Your task to perform on an android device: find snoozed emails in the gmail app Image 0: 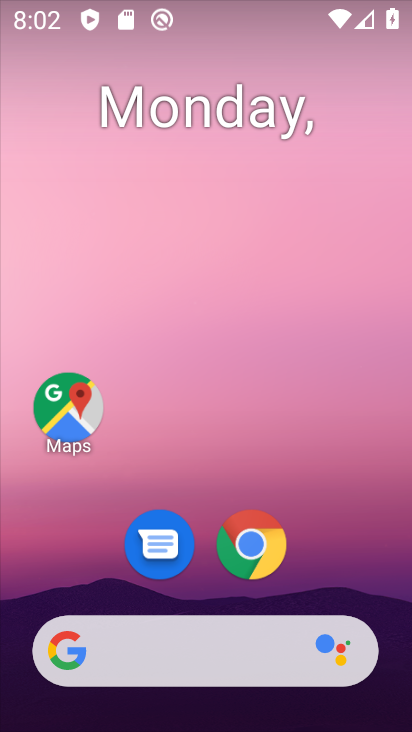
Step 0: drag from (232, 600) to (187, 16)
Your task to perform on an android device: find snoozed emails in the gmail app Image 1: 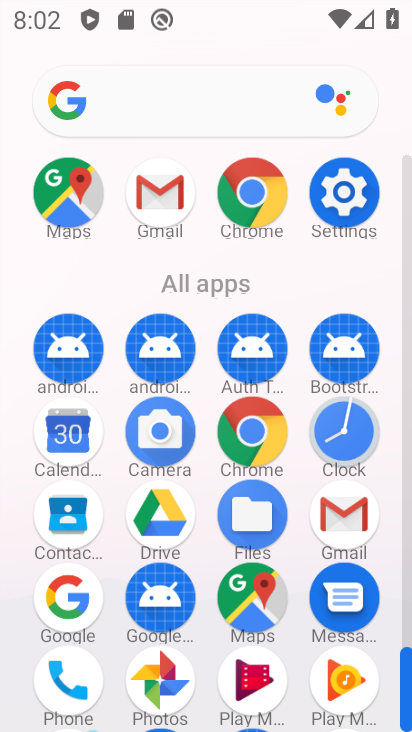
Step 1: click (342, 523)
Your task to perform on an android device: find snoozed emails in the gmail app Image 2: 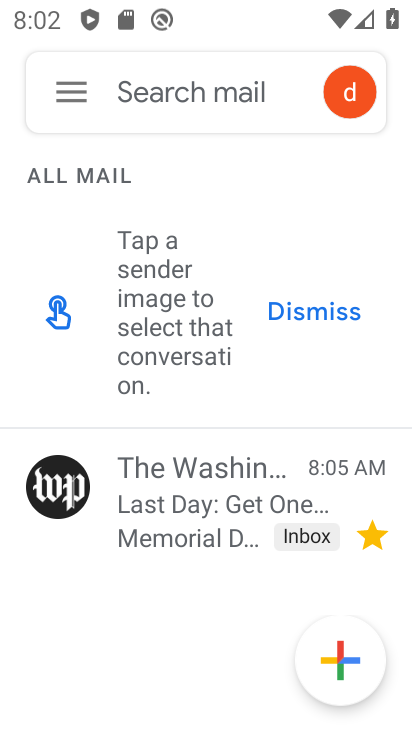
Step 2: click (68, 96)
Your task to perform on an android device: find snoozed emails in the gmail app Image 3: 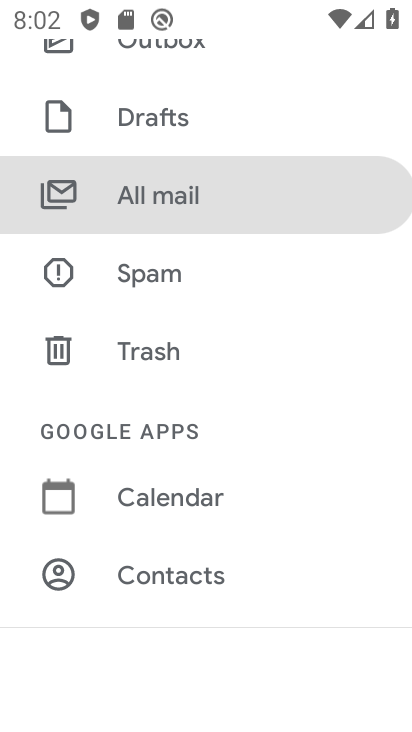
Step 3: drag from (182, 591) to (108, 101)
Your task to perform on an android device: find snoozed emails in the gmail app Image 4: 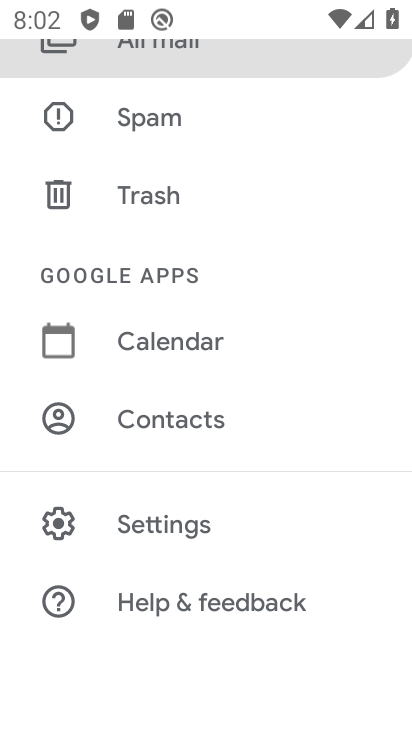
Step 4: drag from (124, 153) to (128, 663)
Your task to perform on an android device: find snoozed emails in the gmail app Image 5: 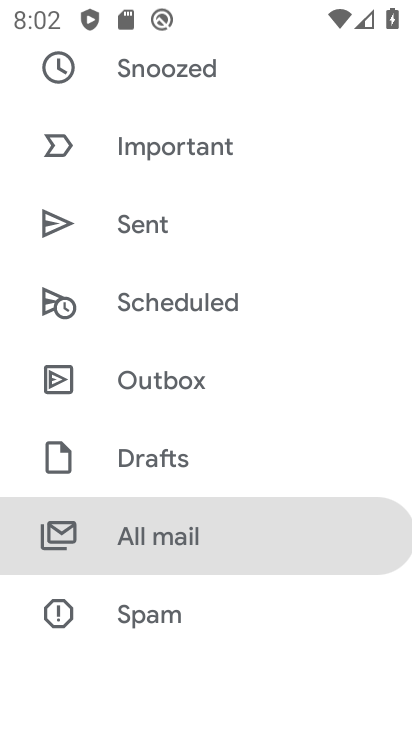
Step 5: click (117, 80)
Your task to perform on an android device: find snoozed emails in the gmail app Image 6: 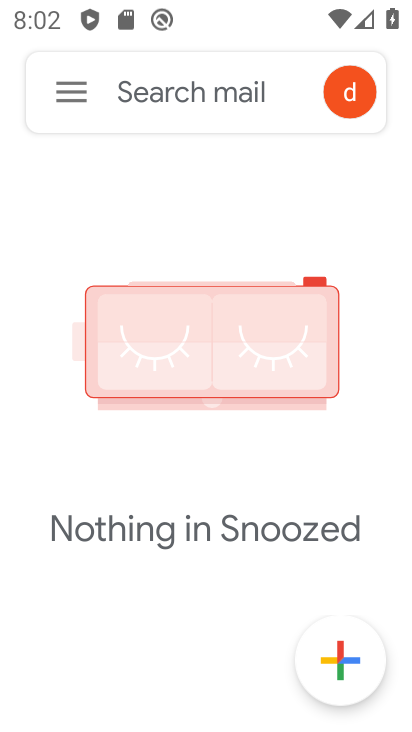
Step 6: task complete